Your task to perform on an android device: find snoozed emails in the gmail app Image 0: 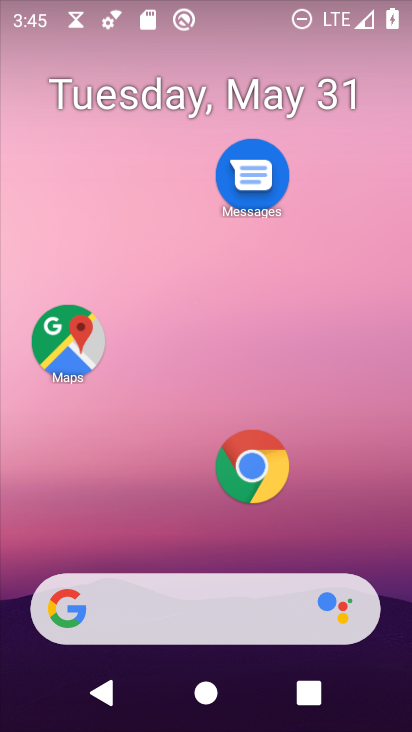
Step 0: drag from (176, 500) to (194, 99)
Your task to perform on an android device: find snoozed emails in the gmail app Image 1: 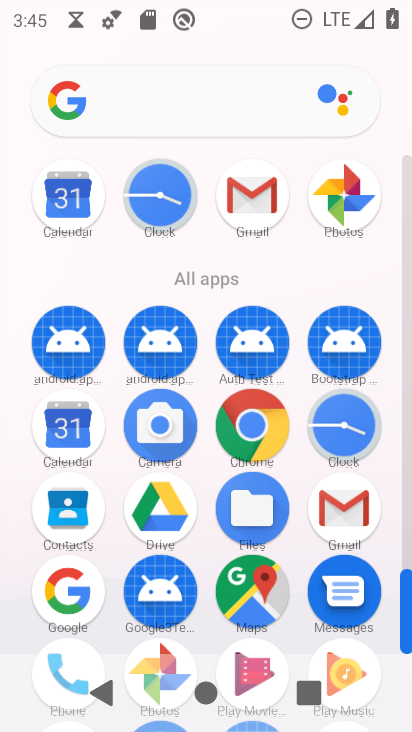
Step 1: click (265, 196)
Your task to perform on an android device: find snoozed emails in the gmail app Image 2: 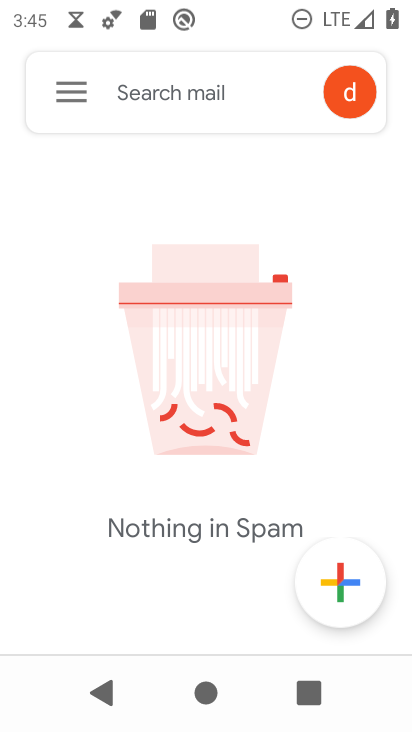
Step 2: click (94, 93)
Your task to perform on an android device: find snoozed emails in the gmail app Image 3: 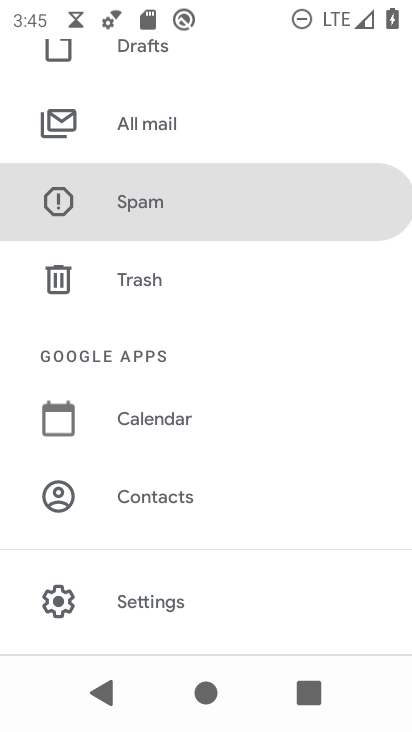
Step 3: drag from (229, 186) to (241, 637)
Your task to perform on an android device: find snoozed emails in the gmail app Image 4: 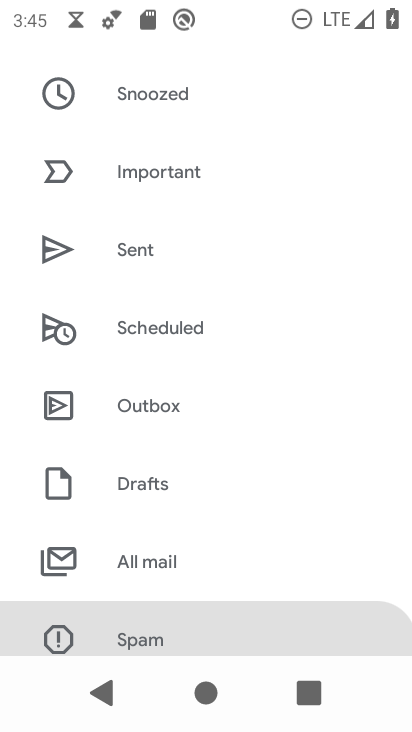
Step 4: click (142, 98)
Your task to perform on an android device: find snoozed emails in the gmail app Image 5: 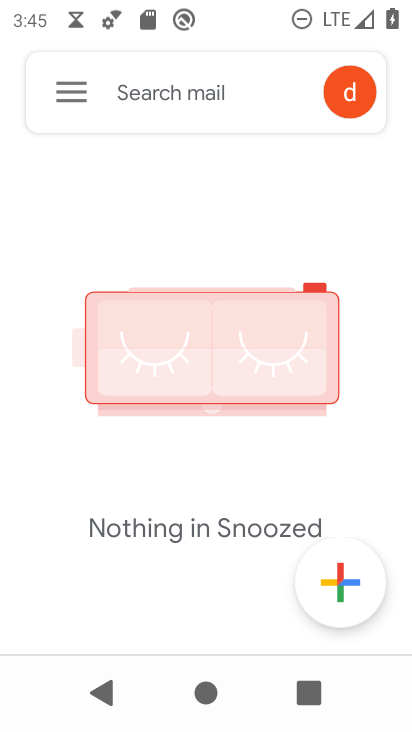
Step 5: task complete